Your task to perform on an android device: turn off notifications settings in the gmail app Image 0: 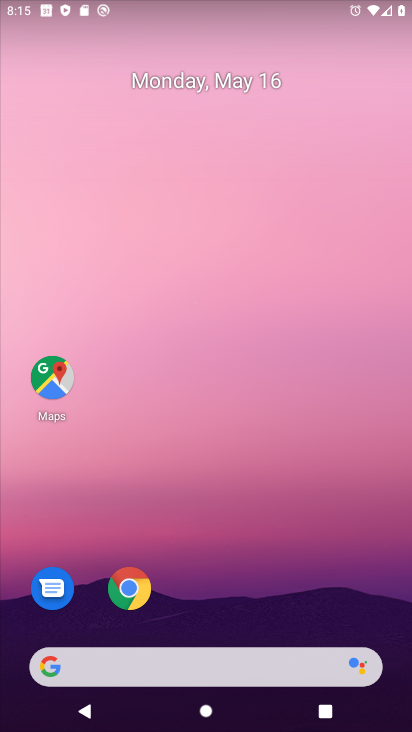
Step 0: press back button
Your task to perform on an android device: turn off notifications settings in the gmail app Image 1: 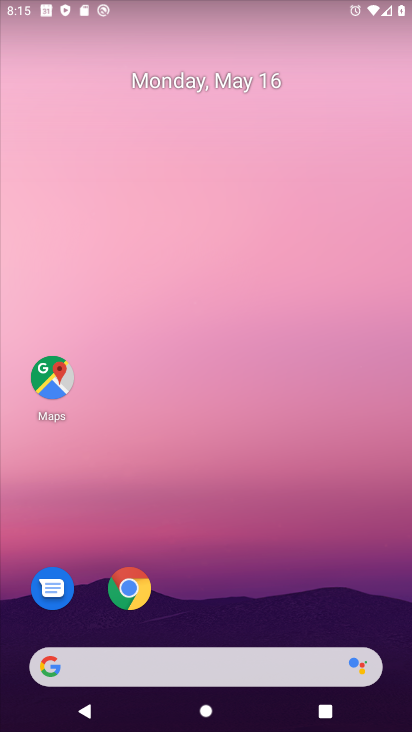
Step 1: drag from (285, 675) to (220, 151)
Your task to perform on an android device: turn off notifications settings in the gmail app Image 2: 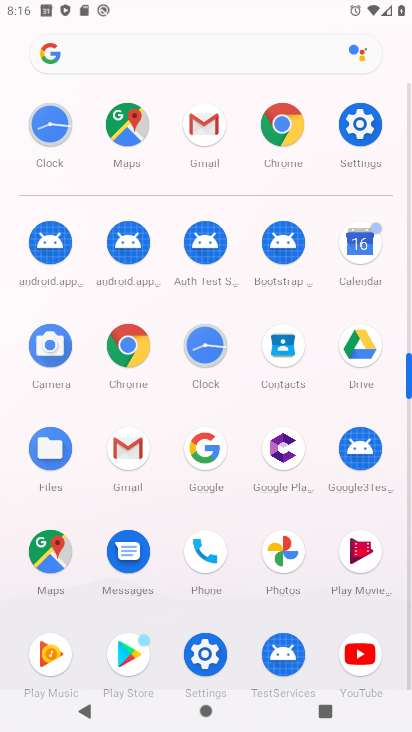
Step 2: click (128, 452)
Your task to perform on an android device: turn off notifications settings in the gmail app Image 3: 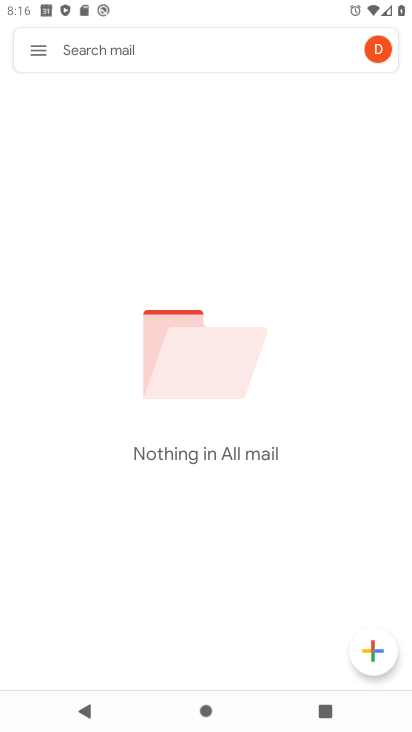
Step 3: click (41, 58)
Your task to perform on an android device: turn off notifications settings in the gmail app Image 4: 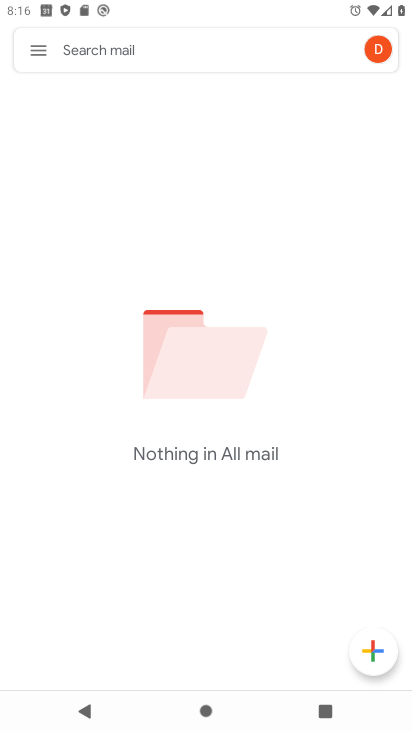
Step 4: click (43, 48)
Your task to perform on an android device: turn off notifications settings in the gmail app Image 5: 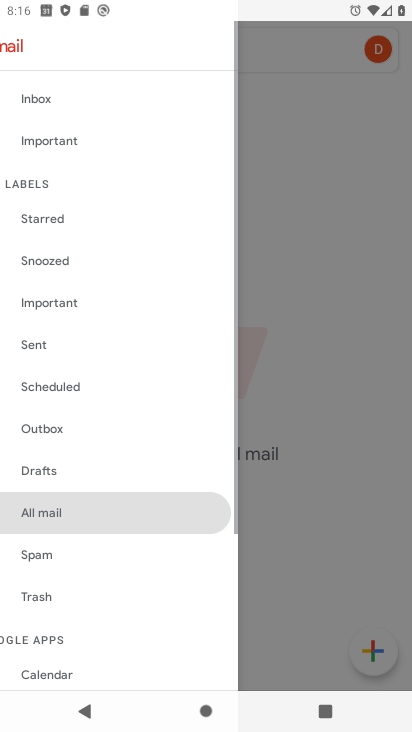
Step 5: click (43, 48)
Your task to perform on an android device: turn off notifications settings in the gmail app Image 6: 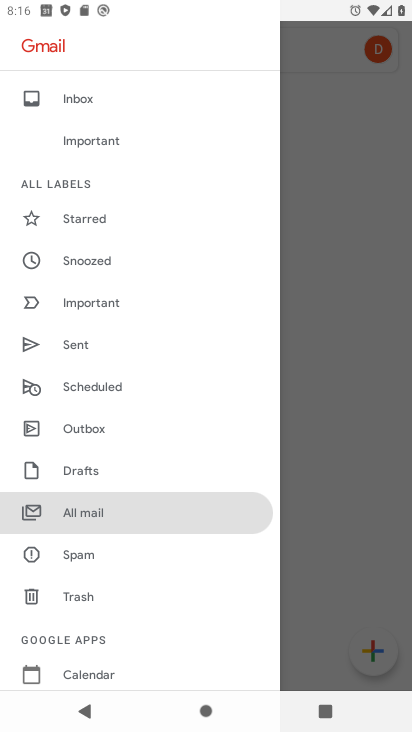
Step 6: drag from (108, 612) to (58, 50)
Your task to perform on an android device: turn off notifications settings in the gmail app Image 7: 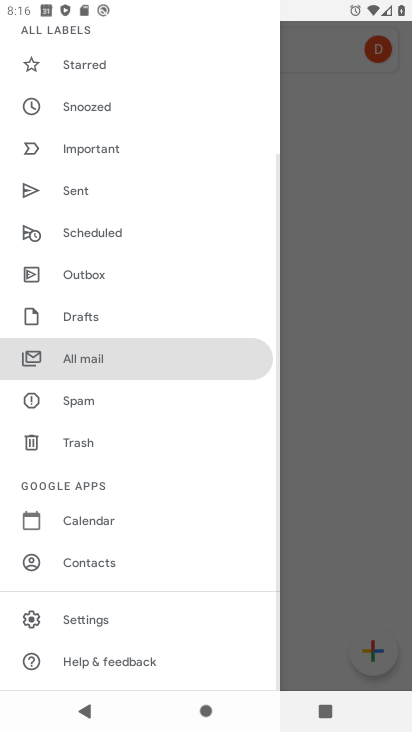
Step 7: click (81, 612)
Your task to perform on an android device: turn off notifications settings in the gmail app Image 8: 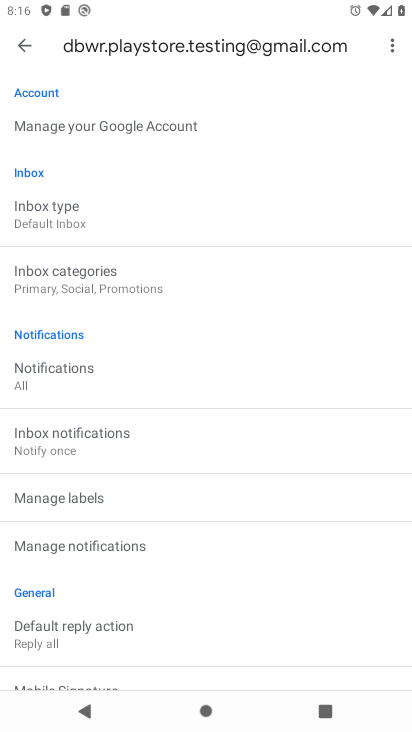
Step 8: click (47, 370)
Your task to perform on an android device: turn off notifications settings in the gmail app Image 9: 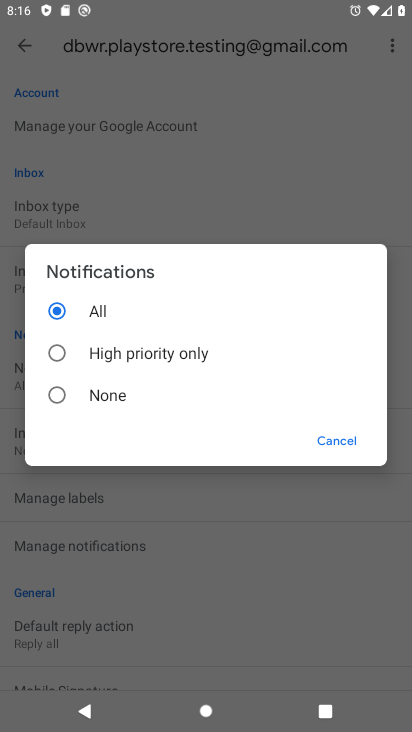
Step 9: click (55, 349)
Your task to perform on an android device: turn off notifications settings in the gmail app Image 10: 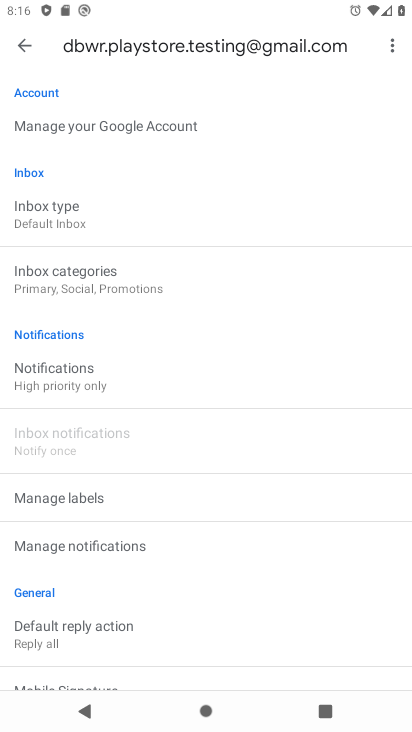
Step 10: task complete